Your task to perform on an android device: Search for sushi restaurants on Maps Image 0: 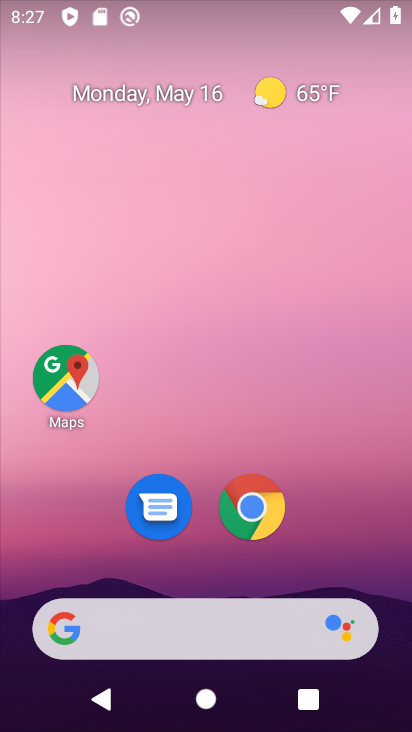
Step 0: click (74, 382)
Your task to perform on an android device: Search for sushi restaurants on Maps Image 1: 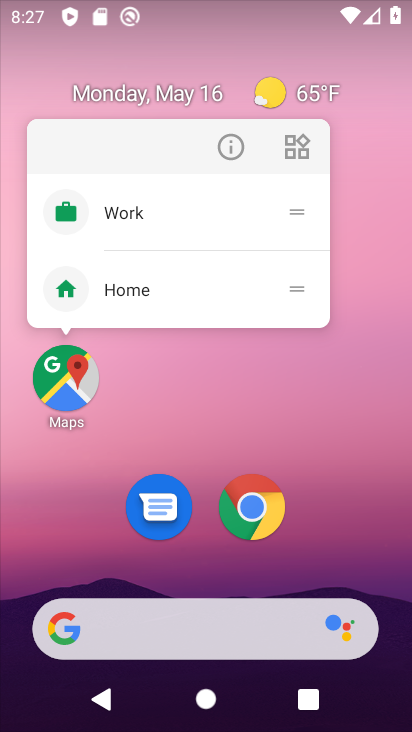
Step 1: click (185, 430)
Your task to perform on an android device: Search for sushi restaurants on Maps Image 2: 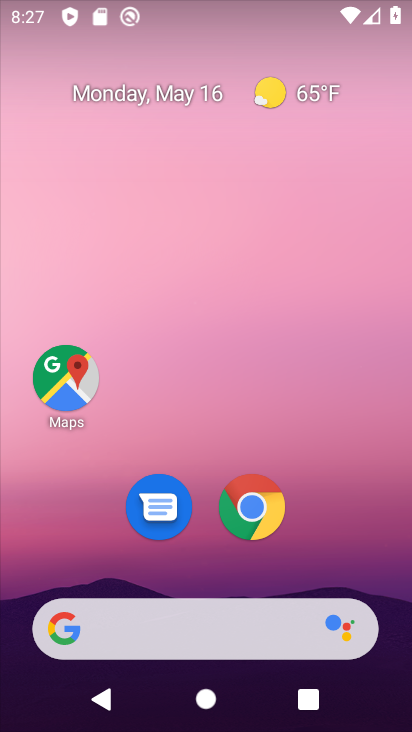
Step 2: click (69, 386)
Your task to perform on an android device: Search for sushi restaurants on Maps Image 3: 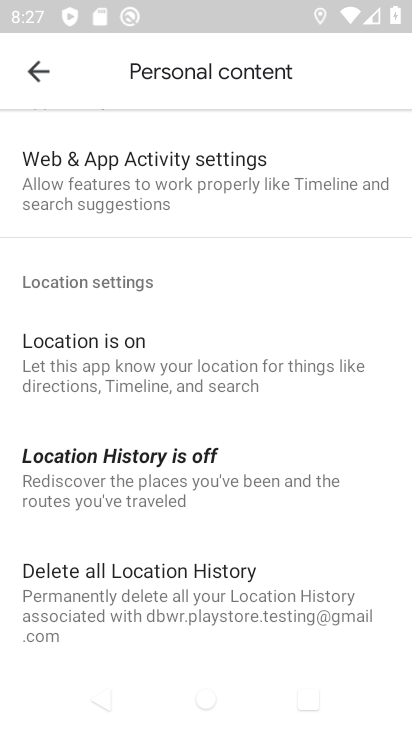
Step 3: press home button
Your task to perform on an android device: Search for sushi restaurants on Maps Image 4: 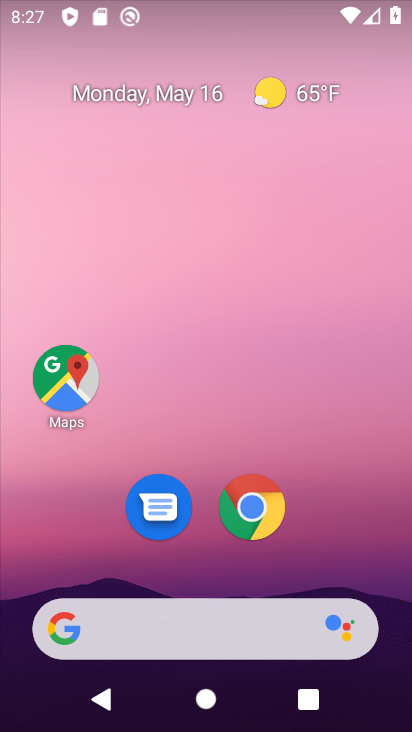
Step 4: click (79, 374)
Your task to perform on an android device: Search for sushi restaurants on Maps Image 5: 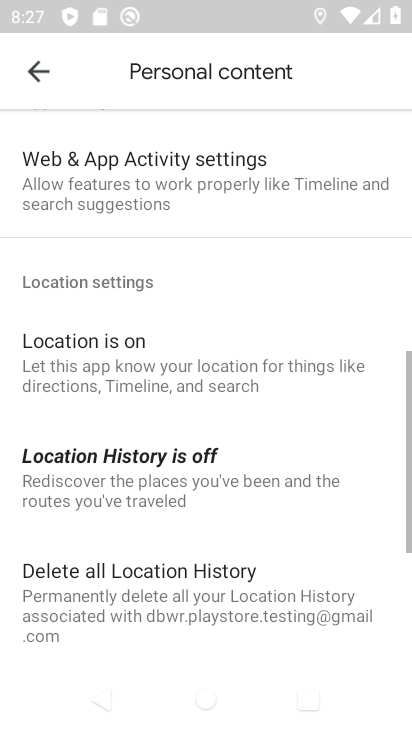
Step 5: click (32, 79)
Your task to perform on an android device: Search for sushi restaurants on Maps Image 6: 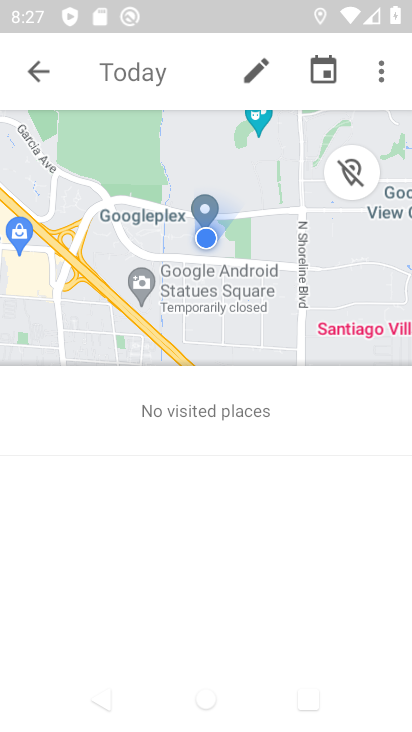
Step 6: click (49, 79)
Your task to perform on an android device: Search for sushi restaurants on Maps Image 7: 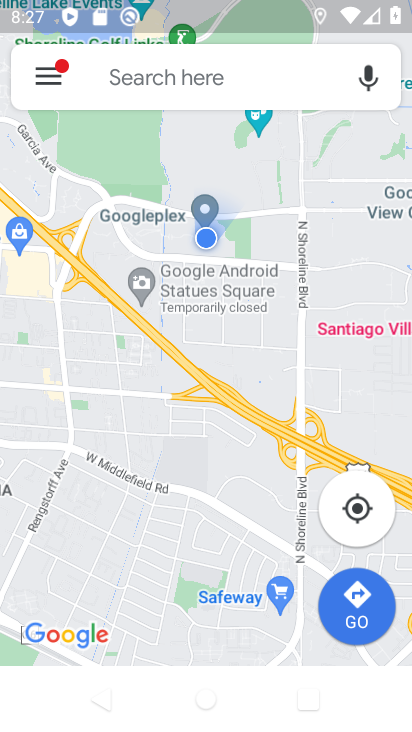
Step 7: click (170, 84)
Your task to perform on an android device: Search for sushi restaurants on Maps Image 8: 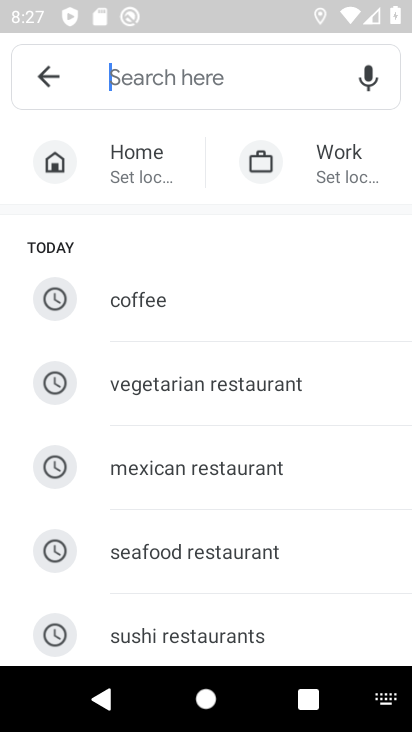
Step 8: click (204, 623)
Your task to perform on an android device: Search for sushi restaurants on Maps Image 9: 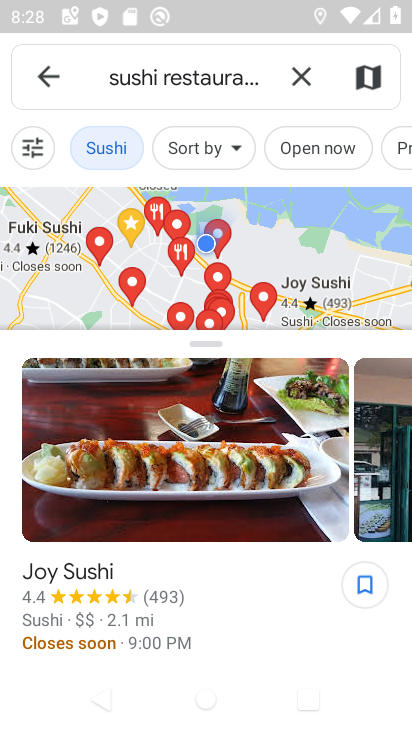
Step 9: task complete